Your task to perform on an android device: turn on priority inbox in the gmail app Image 0: 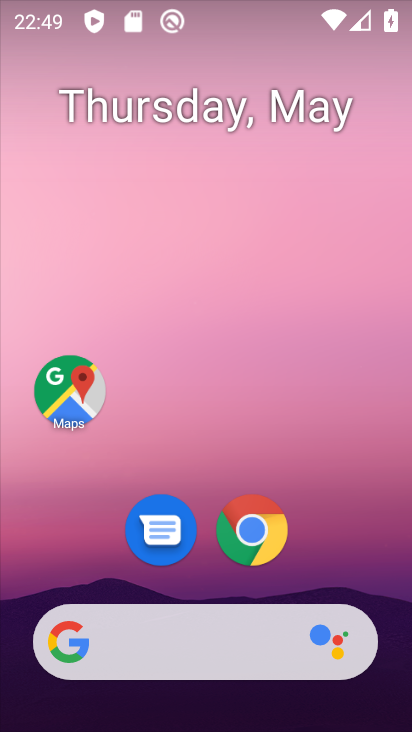
Step 0: drag from (325, 545) to (372, 10)
Your task to perform on an android device: turn on priority inbox in the gmail app Image 1: 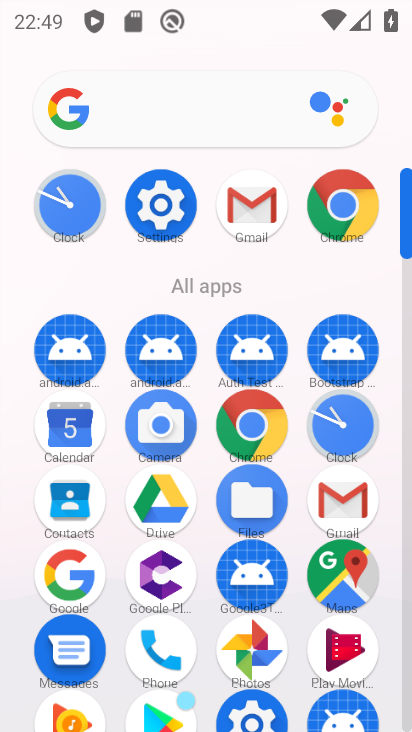
Step 1: click (251, 206)
Your task to perform on an android device: turn on priority inbox in the gmail app Image 2: 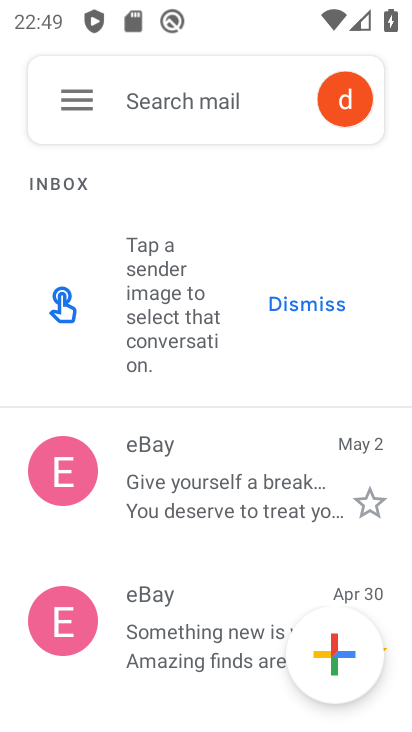
Step 2: click (68, 103)
Your task to perform on an android device: turn on priority inbox in the gmail app Image 3: 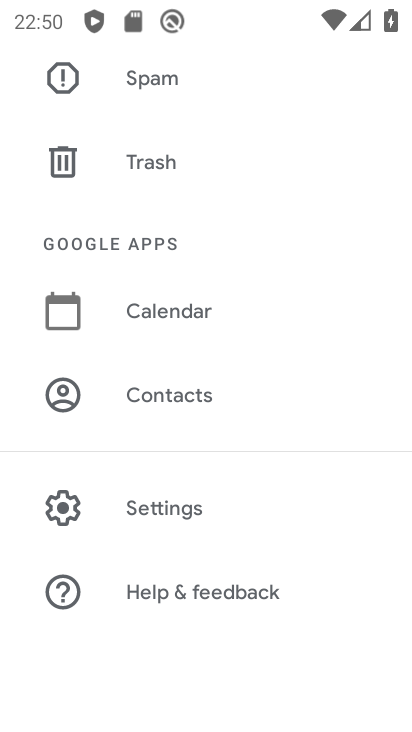
Step 3: click (151, 516)
Your task to perform on an android device: turn on priority inbox in the gmail app Image 4: 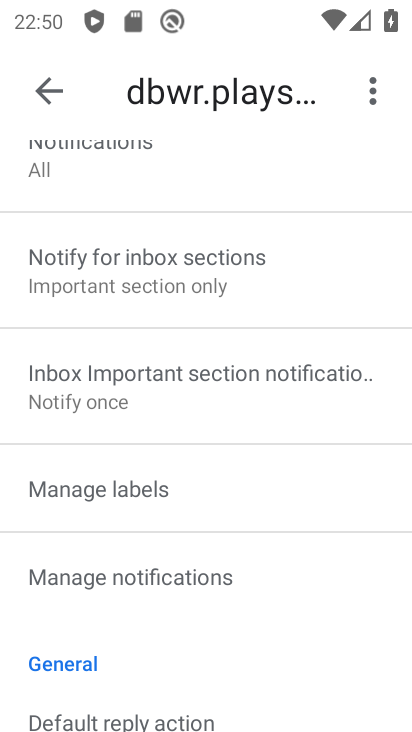
Step 4: drag from (179, 350) to (175, 476)
Your task to perform on an android device: turn on priority inbox in the gmail app Image 5: 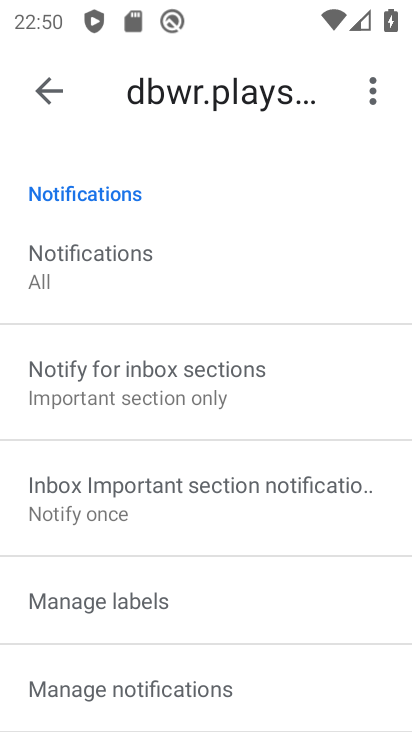
Step 5: drag from (171, 294) to (197, 407)
Your task to perform on an android device: turn on priority inbox in the gmail app Image 6: 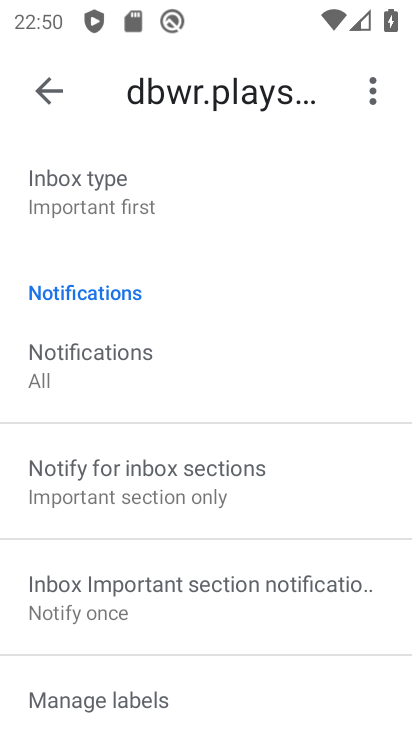
Step 6: drag from (199, 285) to (236, 395)
Your task to perform on an android device: turn on priority inbox in the gmail app Image 7: 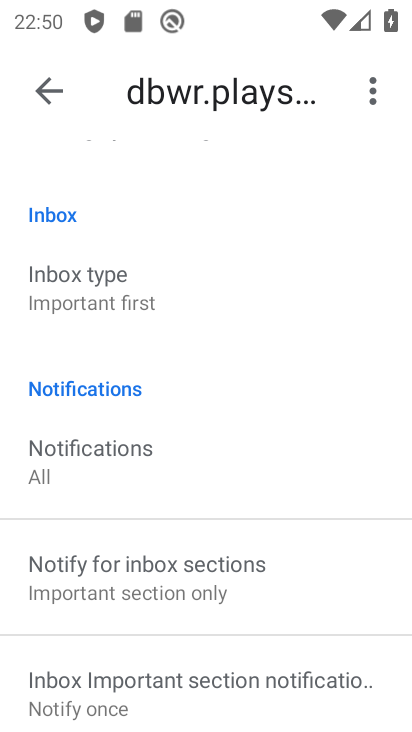
Step 7: click (143, 300)
Your task to perform on an android device: turn on priority inbox in the gmail app Image 8: 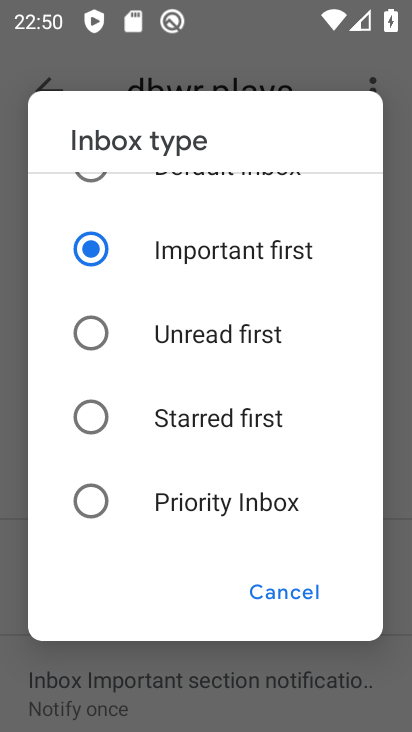
Step 8: click (80, 492)
Your task to perform on an android device: turn on priority inbox in the gmail app Image 9: 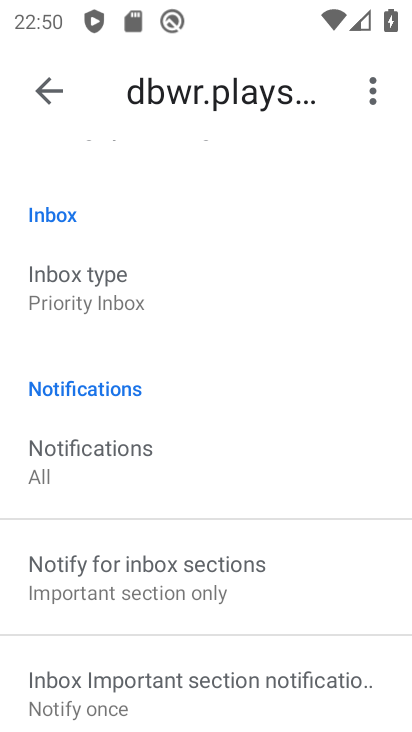
Step 9: task complete